Your task to perform on an android device: open app "Viber Messenger" (install if not already installed) Image 0: 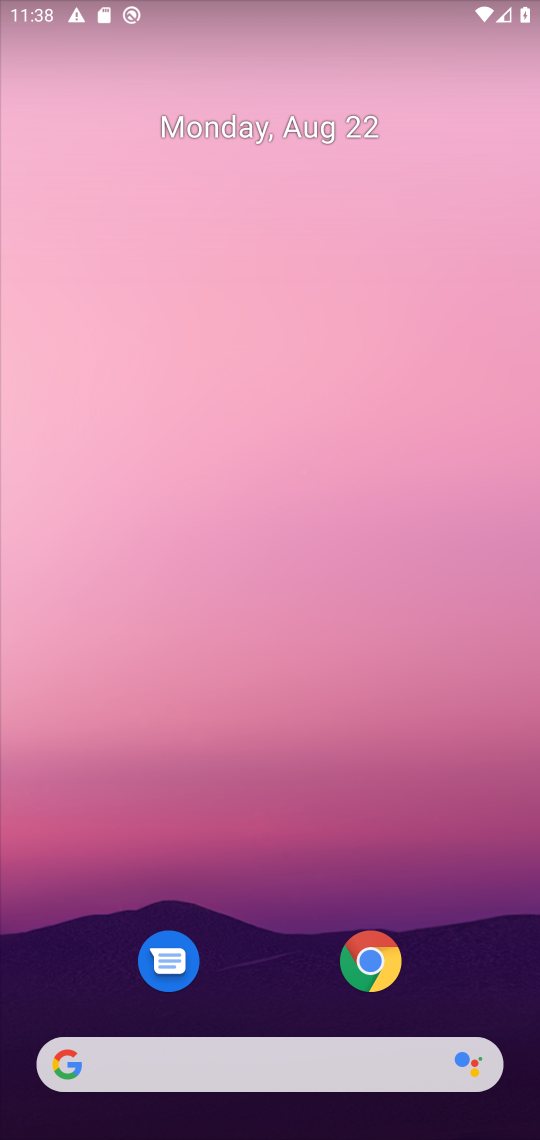
Step 0: press home button
Your task to perform on an android device: open app "Viber Messenger" (install if not already installed) Image 1: 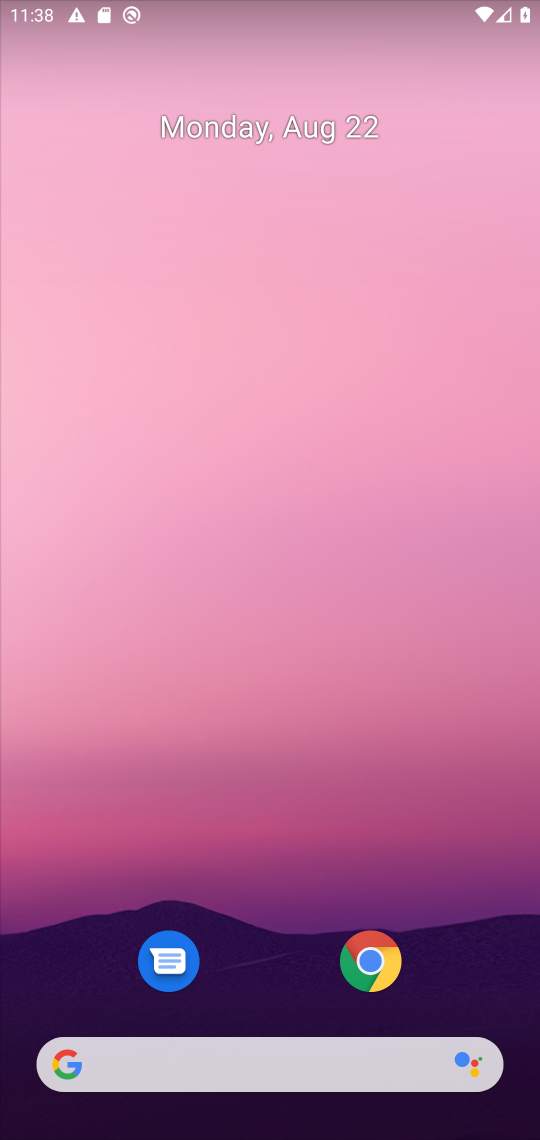
Step 1: drag from (282, 1004) to (206, 113)
Your task to perform on an android device: open app "Viber Messenger" (install if not already installed) Image 2: 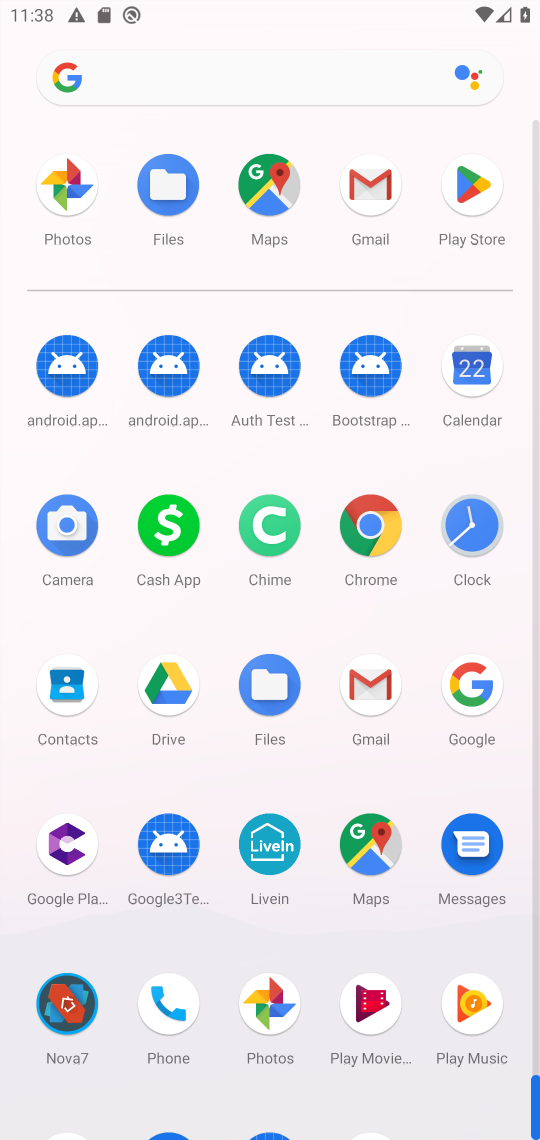
Step 2: click (447, 194)
Your task to perform on an android device: open app "Viber Messenger" (install if not already installed) Image 3: 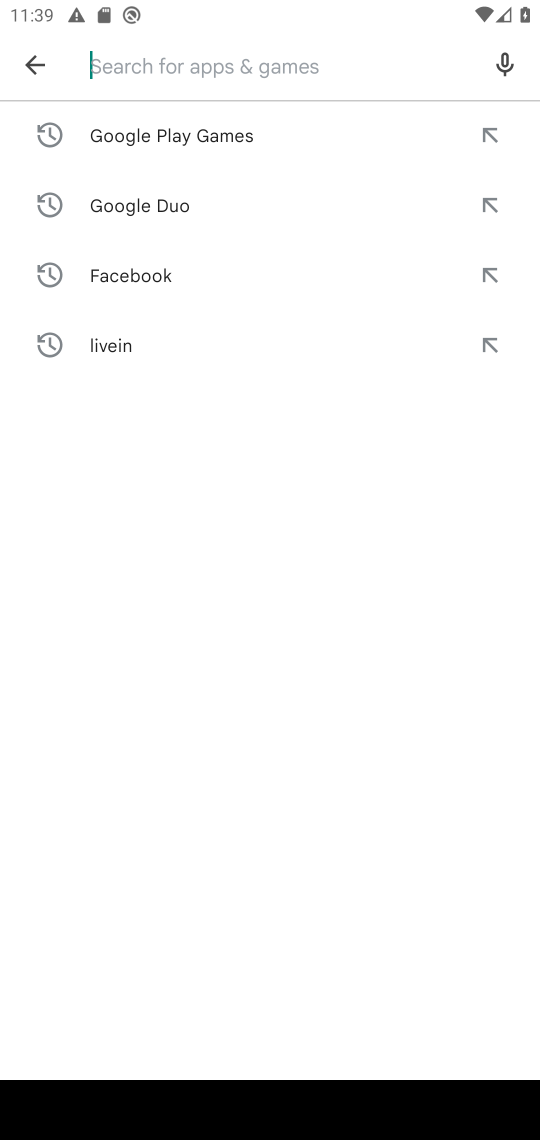
Step 3: type "viber"
Your task to perform on an android device: open app "Viber Messenger" (install if not already installed) Image 4: 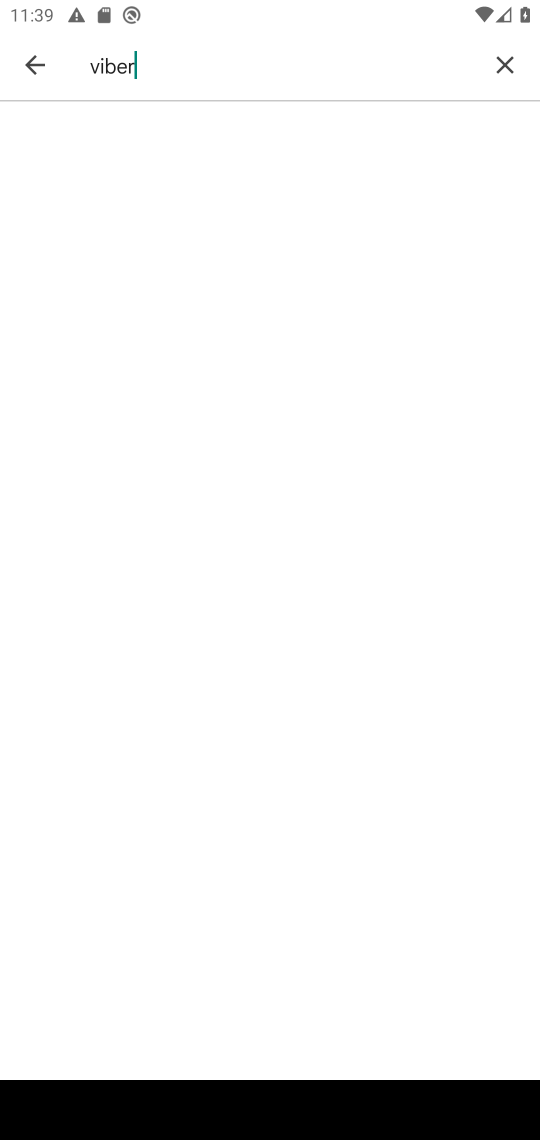
Step 4: task complete